Your task to perform on an android device: Open settings on Google Maps Image 0: 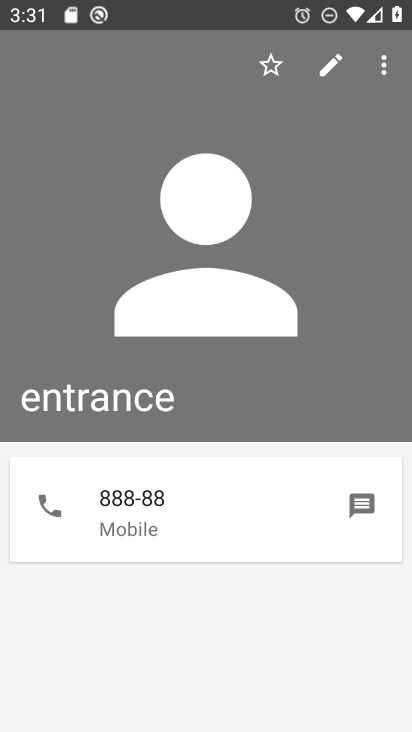
Step 0: press home button
Your task to perform on an android device: Open settings on Google Maps Image 1: 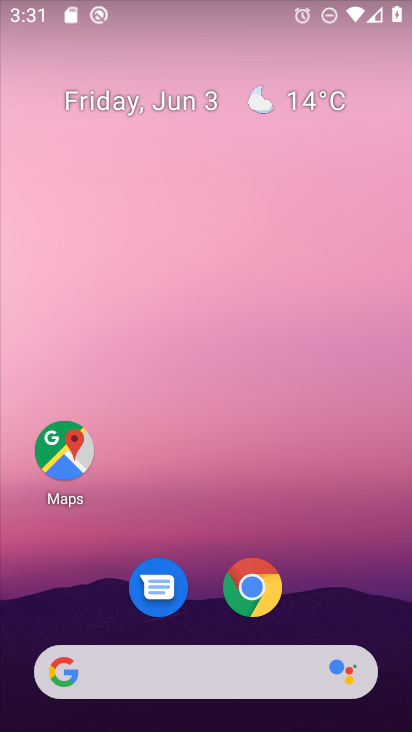
Step 1: drag from (274, 721) to (272, 200)
Your task to perform on an android device: Open settings on Google Maps Image 2: 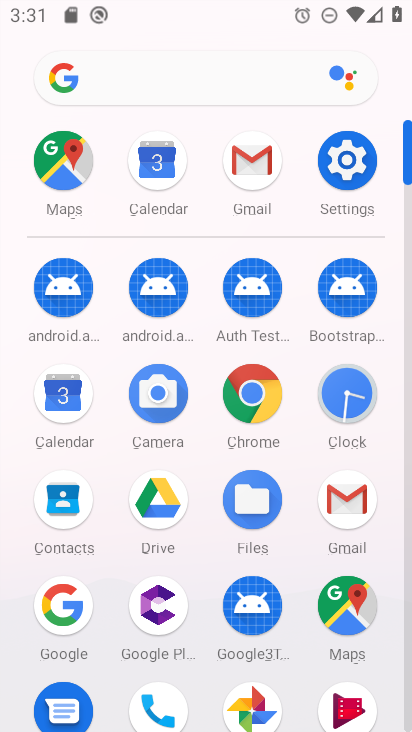
Step 2: click (349, 590)
Your task to perform on an android device: Open settings on Google Maps Image 3: 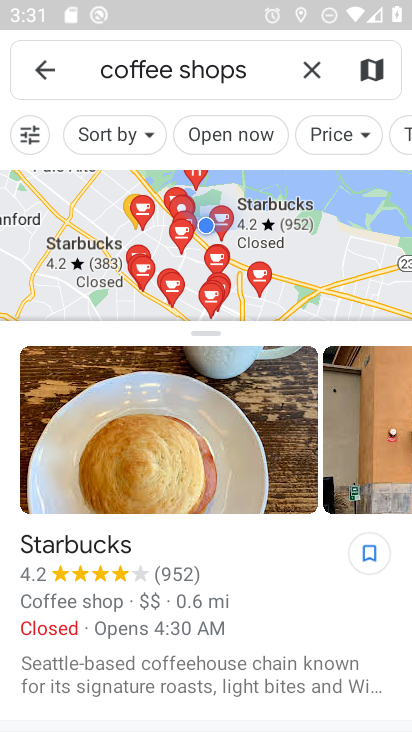
Step 3: click (41, 72)
Your task to perform on an android device: Open settings on Google Maps Image 4: 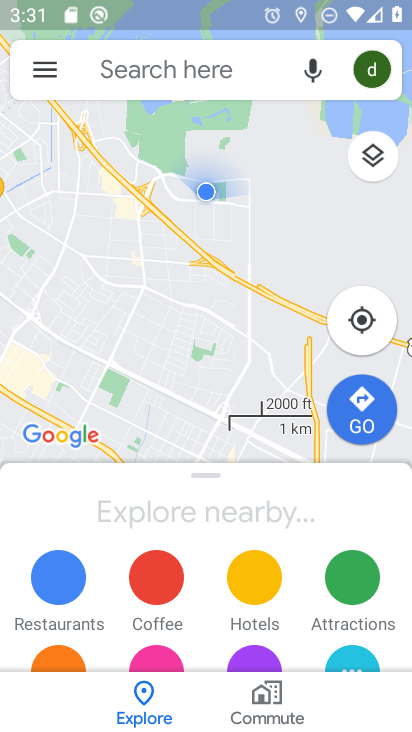
Step 4: click (48, 67)
Your task to perform on an android device: Open settings on Google Maps Image 5: 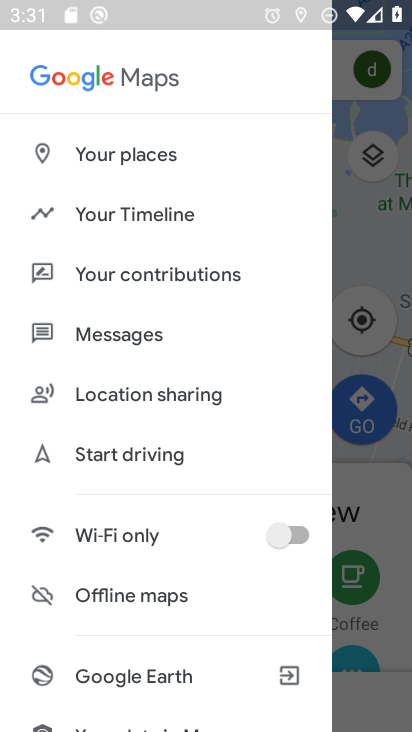
Step 5: drag from (107, 700) to (118, 295)
Your task to perform on an android device: Open settings on Google Maps Image 6: 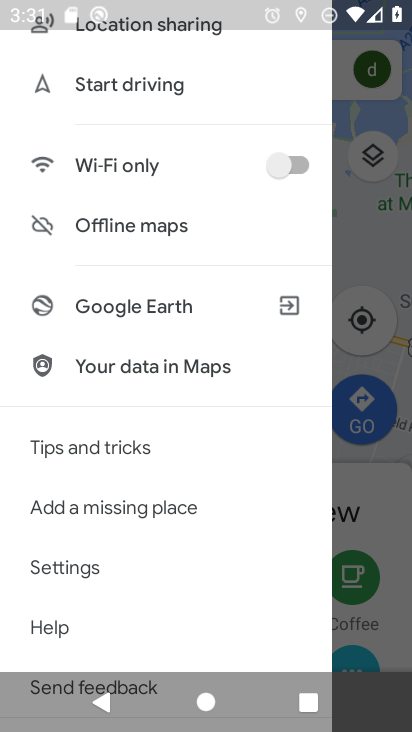
Step 6: click (67, 564)
Your task to perform on an android device: Open settings on Google Maps Image 7: 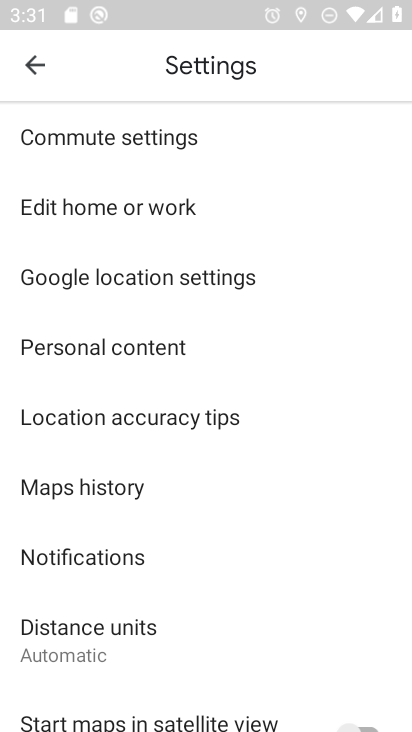
Step 7: task complete